Your task to perform on an android device: toggle notifications settings in the gmail app Image 0: 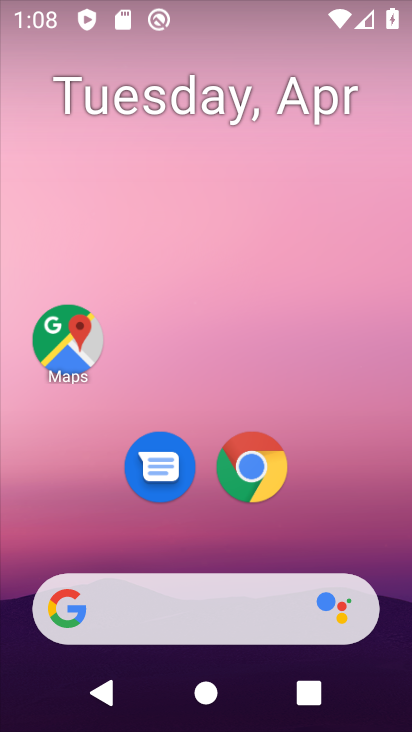
Step 0: drag from (394, 502) to (365, 68)
Your task to perform on an android device: toggle notifications settings in the gmail app Image 1: 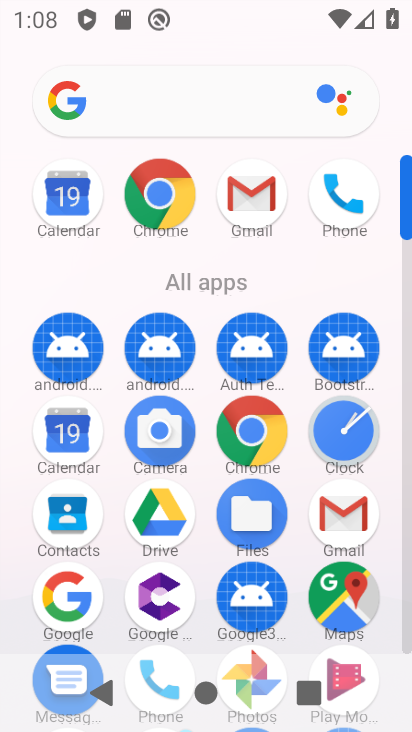
Step 1: click (257, 195)
Your task to perform on an android device: toggle notifications settings in the gmail app Image 2: 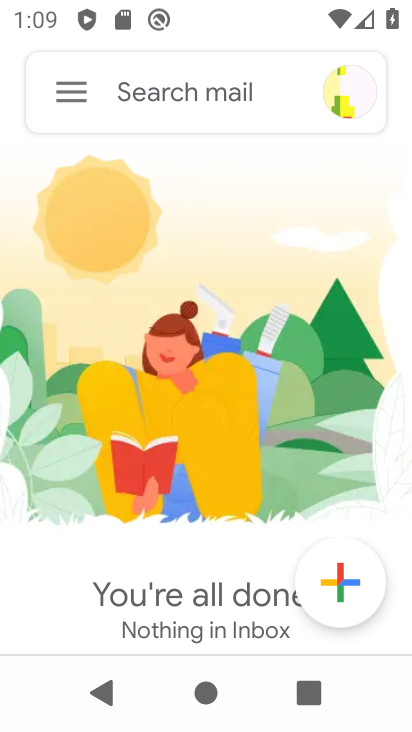
Step 2: click (69, 93)
Your task to perform on an android device: toggle notifications settings in the gmail app Image 3: 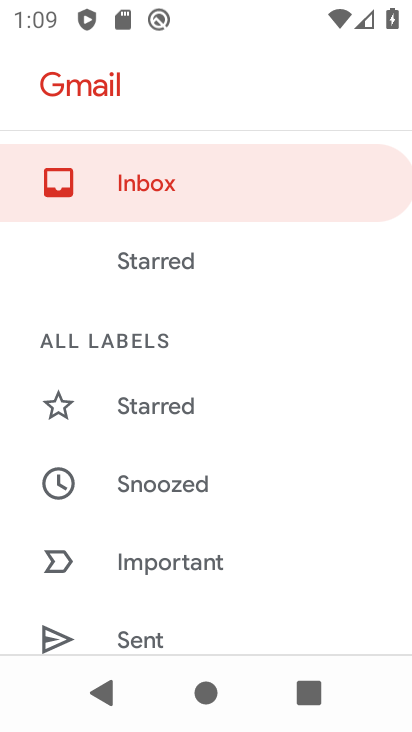
Step 3: drag from (311, 527) to (316, 332)
Your task to perform on an android device: toggle notifications settings in the gmail app Image 4: 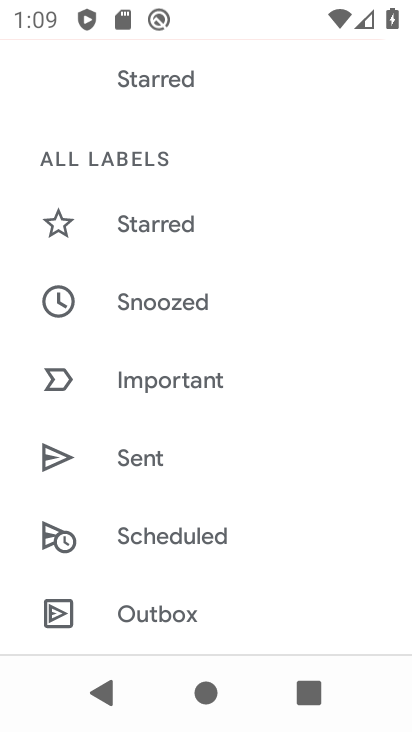
Step 4: drag from (332, 540) to (331, 349)
Your task to perform on an android device: toggle notifications settings in the gmail app Image 5: 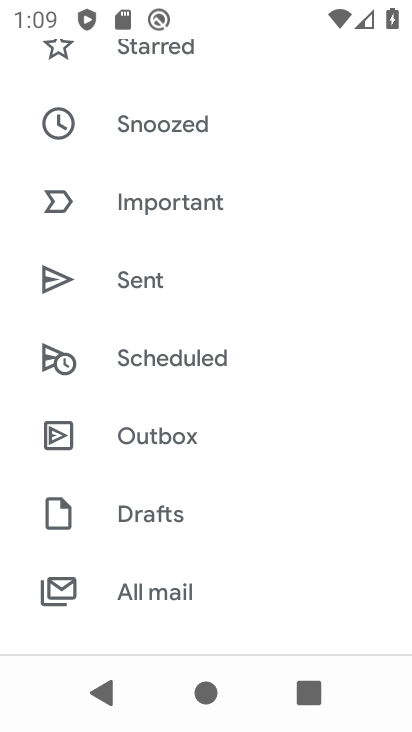
Step 5: drag from (329, 554) to (316, 350)
Your task to perform on an android device: toggle notifications settings in the gmail app Image 6: 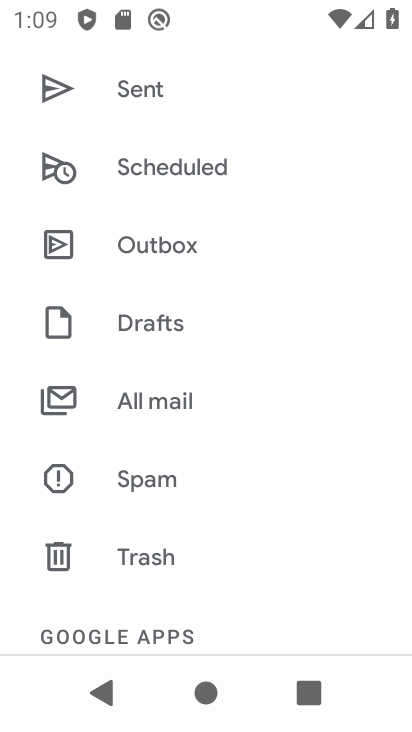
Step 6: drag from (316, 577) to (322, 326)
Your task to perform on an android device: toggle notifications settings in the gmail app Image 7: 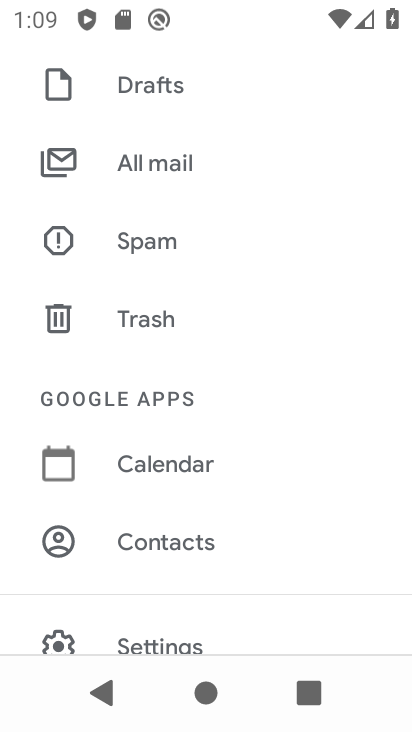
Step 7: drag from (322, 553) to (317, 318)
Your task to perform on an android device: toggle notifications settings in the gmail app Image 8: 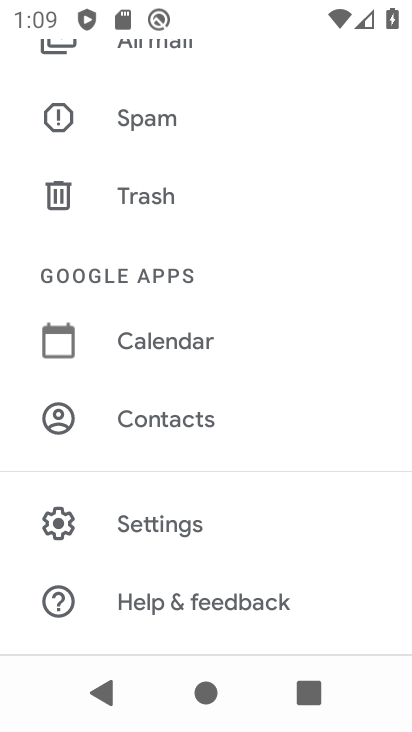
Step 8: click (187, 526)
Your task to perform on an android device: toggle notifications settings in the gmail app Image 9: 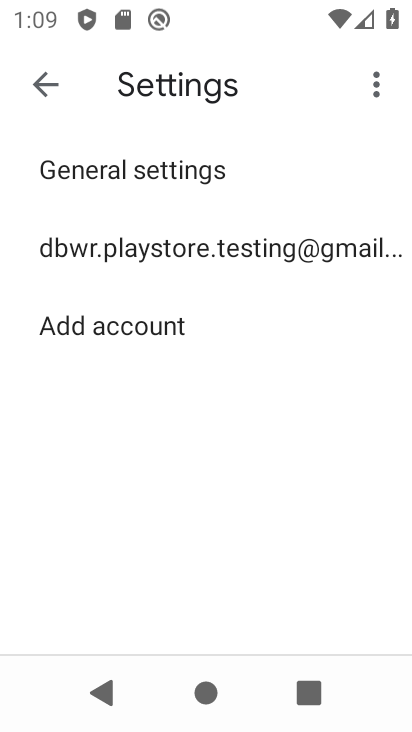
Step 9: click (256, 252)
Your task to perform on an android device: toggle notifications settings in the gmail app Image 10: 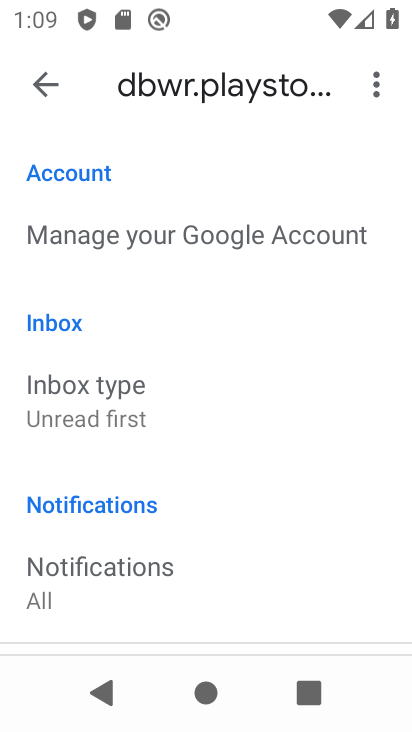
Step 10: drag from (303, 529) to (303, 321)
Your task to perform on an android device: toggle notifications settings in the gmail app Image 11: 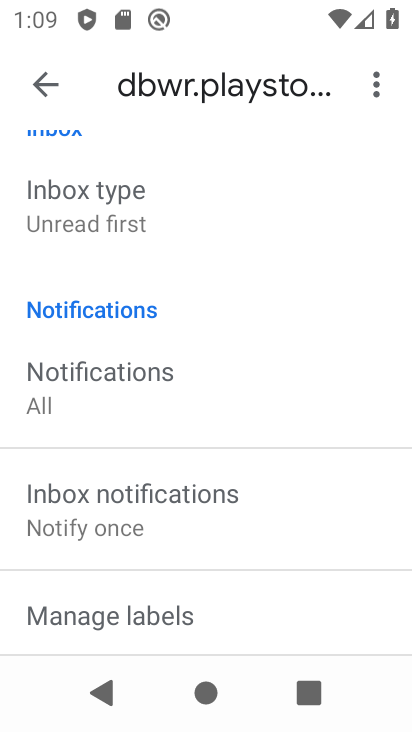
Step 11: drag from (323, 511) to (331, 327)
Your task to perform on an android device: toggle notifications settings in the gmail app Image 12: 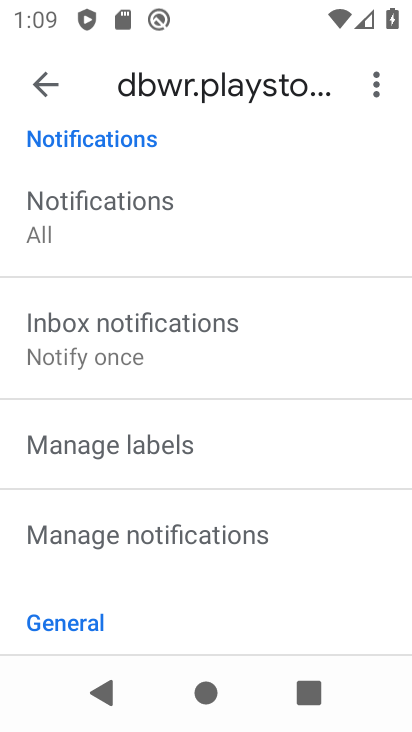
Step 12: drag from (342, 546) to (339, 352)
Your task to perform on an android device: toggle notifications settings in the gmail app Image 13: 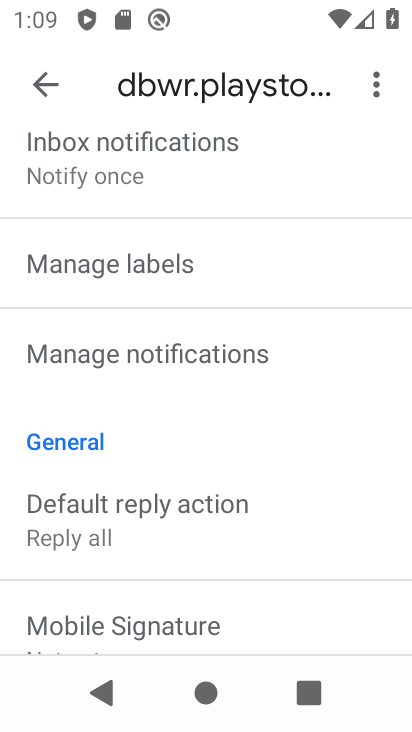
Step 13: drag from (336, 595) to (335, 373)
Your task to perform on an android device: toggle notifications settings in the gmail app Image 14: 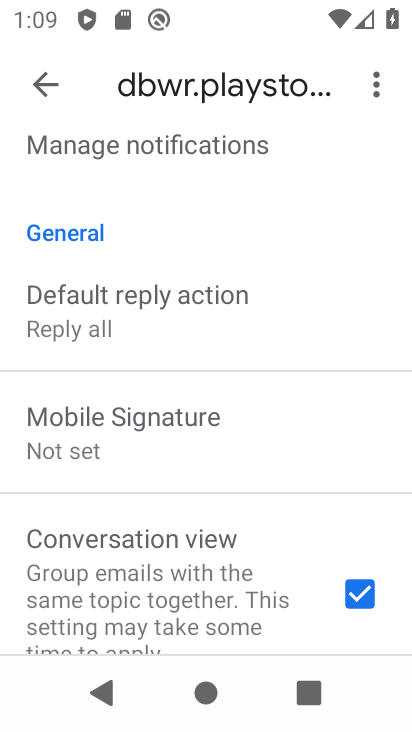
Step 14: drag from (327, 284) to (305, 566)
Your task to perform on an android device: toggle notifications settings in the gmail app Image 15: 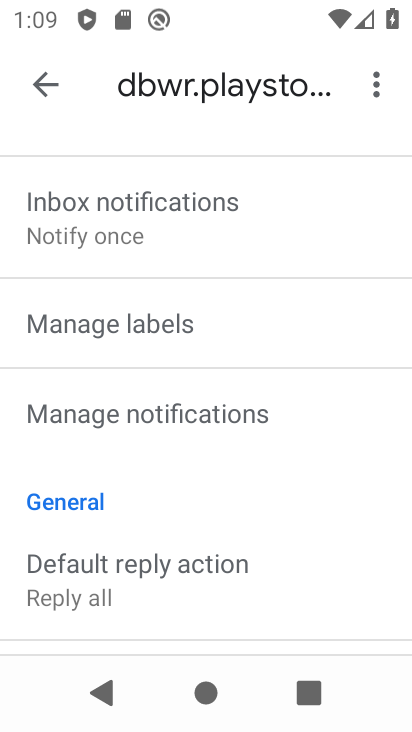
Step 15: drag from (321, 246) to (326, 514)
Your task to perform on an android device: toggle notifications settings in the gmail app Image 16: 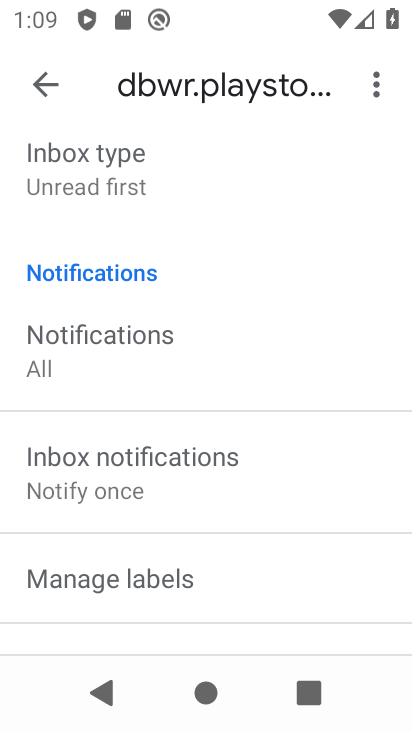
Step 16: click (126, 344)
Your task to perform on an android device: toggle notifications settings in the gmail app Image 17: 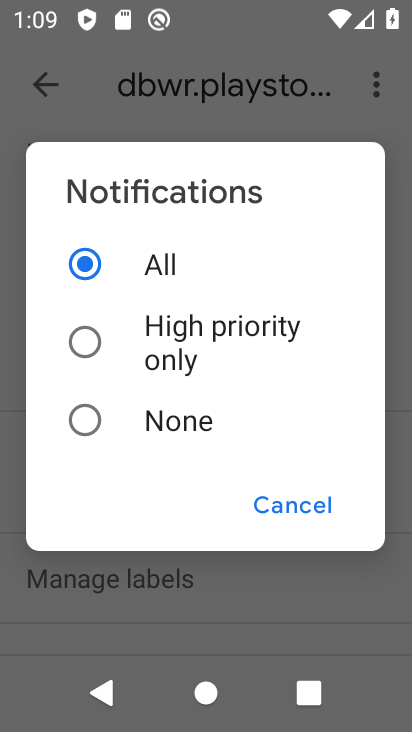
Step 17: click (75, 342)
Your task to perform on an android device: toggle notifications settings in the gmail app Image 18: 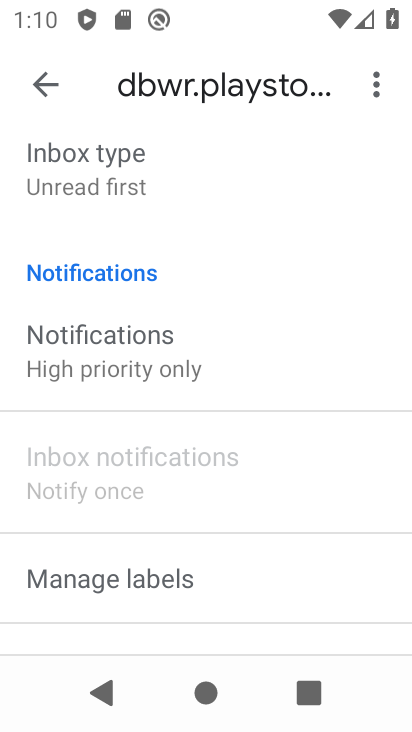
Step 18: task complete